Your task to perform on an android device: Open the calendar app, open the side menu, and click the "Day" option Image 0: 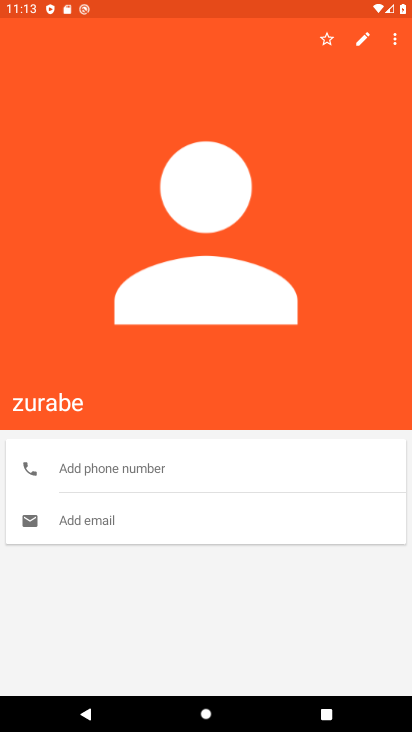
Step 0: press home button
Your task to perform on an android device: Open the calendar app, open the side menu, and click the "Day" option Image 1: 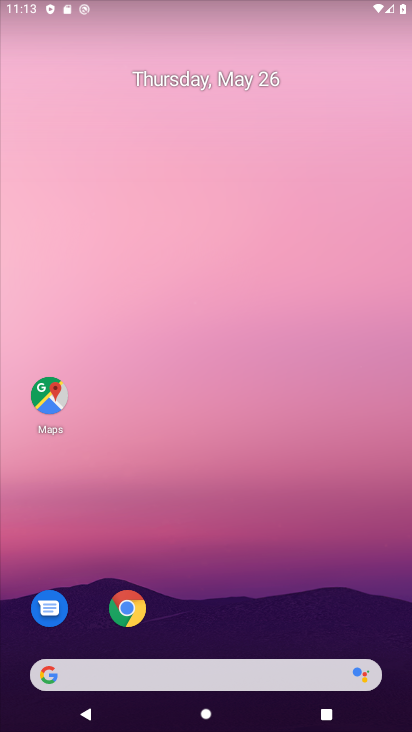
Step 1: drag from (291, 598) to (369, 90)
Your task to perform on an android device: Open the calendar app, open the side menu, and click the "Day" option Image 2: 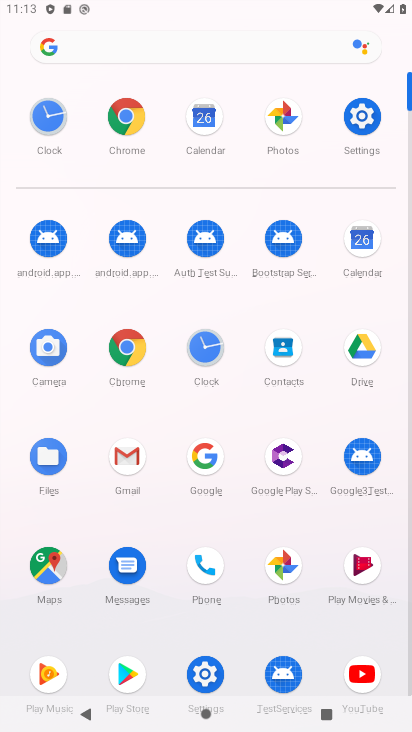
Step 2: click (212, 120)
Your task to perform on an android device: Open the calendar app, open the side menu, and click the "Day" option Image 3: 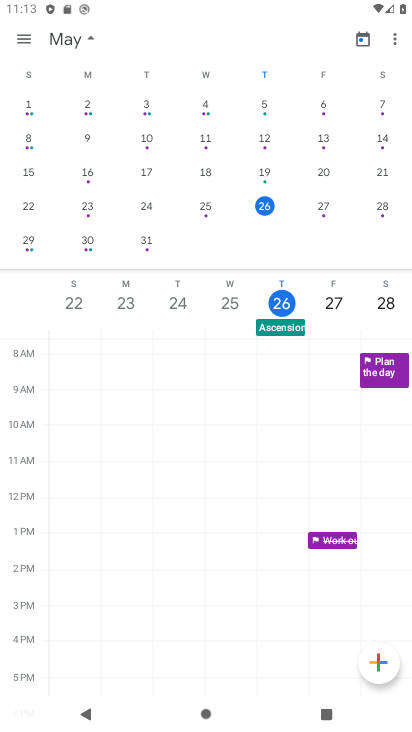
Step 3: click (35, 32)
Your task to perform on an android device: Open the calendar app, open the side menu, and click the "Day" option Image 4: 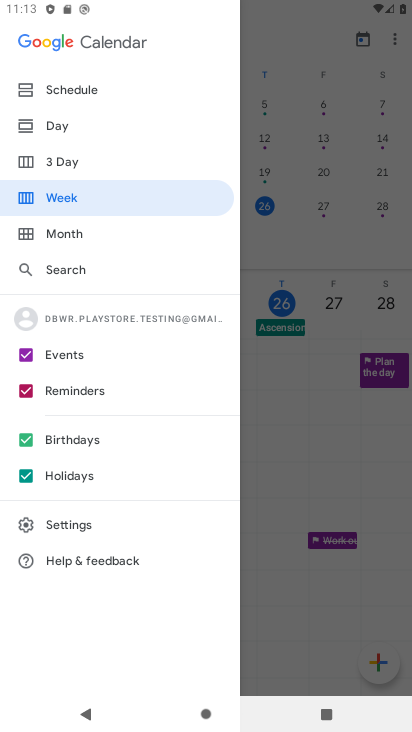
Step 4: click (76, 128)
Your task to perform on an android device: Open the calendar app, open the side menu, and click the "Day" option Image 5: 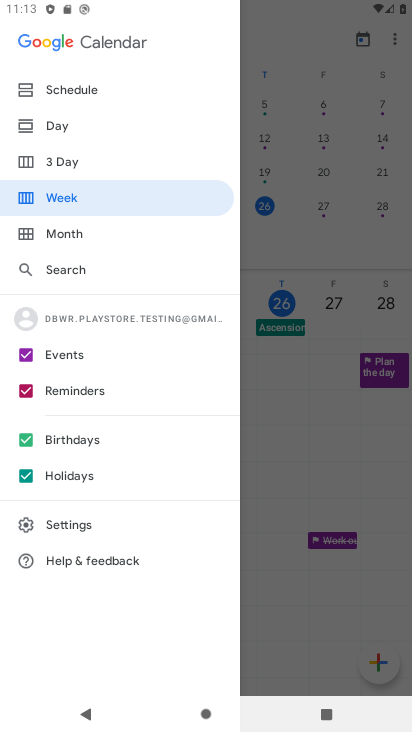
Step 5: click (50, 118)
Your task to perform on an android device: Open the calendar app, open the side menu, and click the "Day" option Image 6: 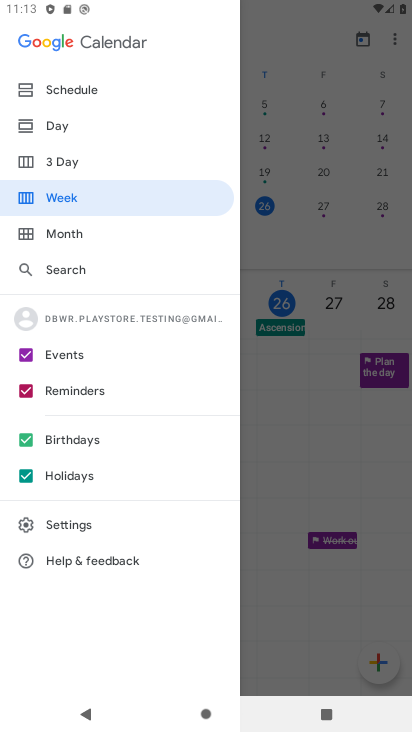
Step 6: click (61, 128)
Your task to perform on an android device: Open the calendar app, open the side menu, and click the "Day" option Image 7: 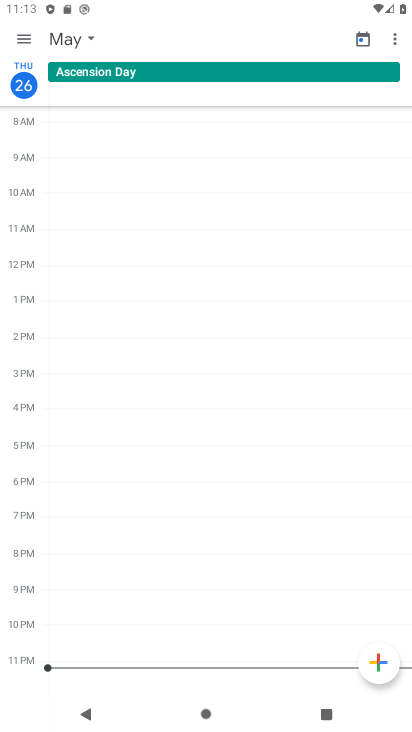
Step 7: task complete